Your task to perform on an android device: uninstall "Microsoft Excel" Image 0: 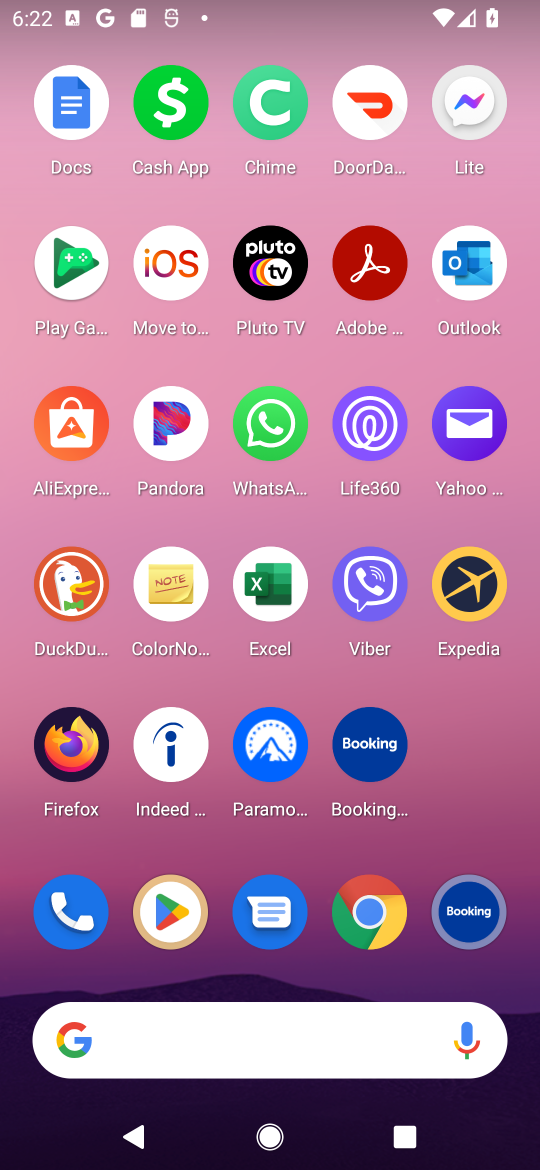
Step 0: click (177, 910)
Your task to perform on an android device: uninstall "Microsoft Excel" Image 1: 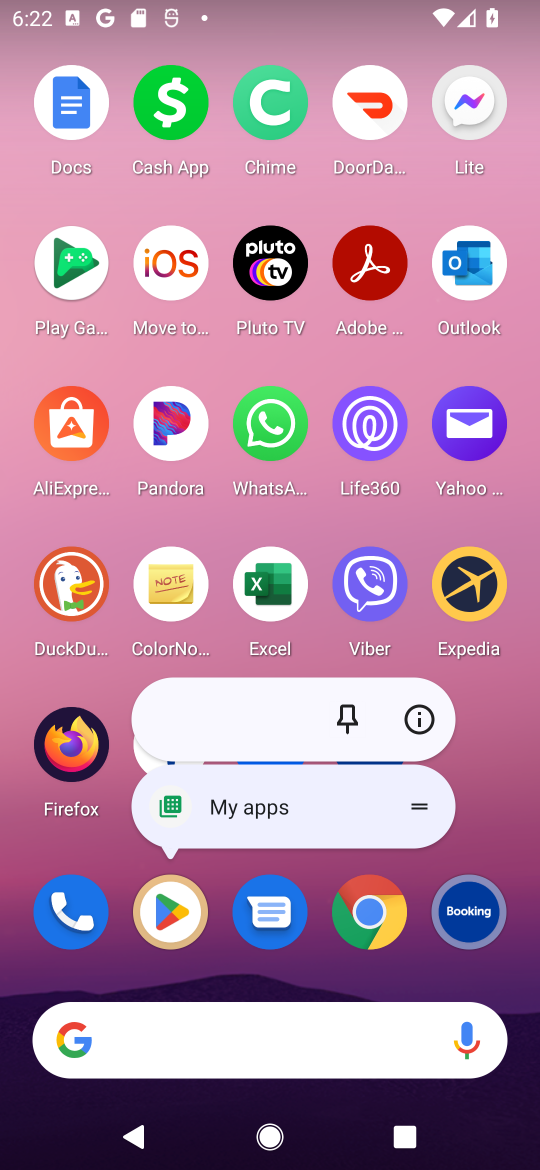
Step 1: click (159, 903)
Your task to perform on an android device: uninstall "Microsoft Excel" Image 2: 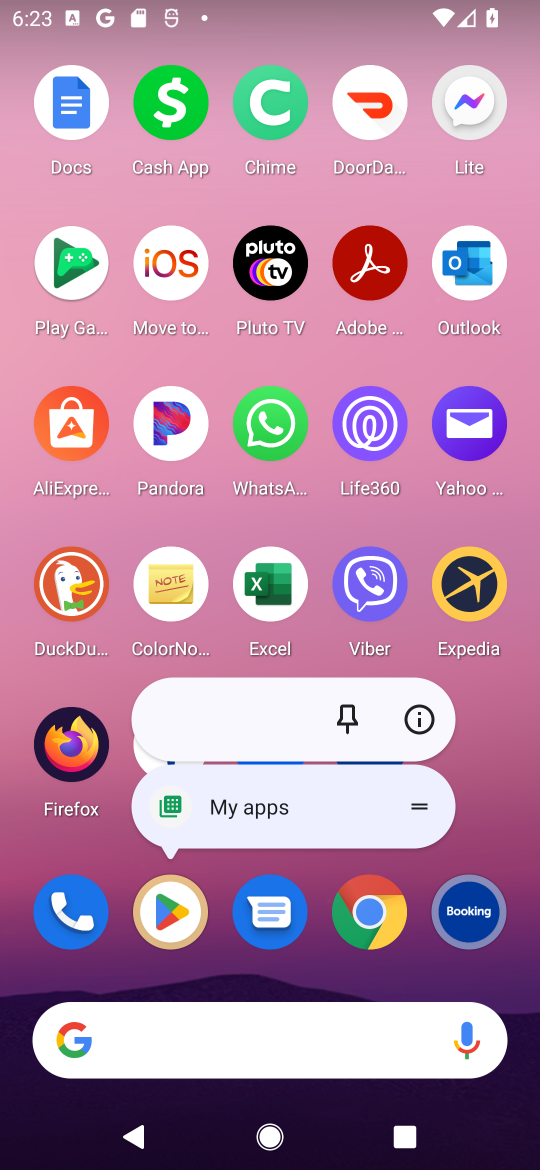
Step 2: click (152, 929)
Your task to perform on an android device: uninstall "Microsoft Excel" Image 3: 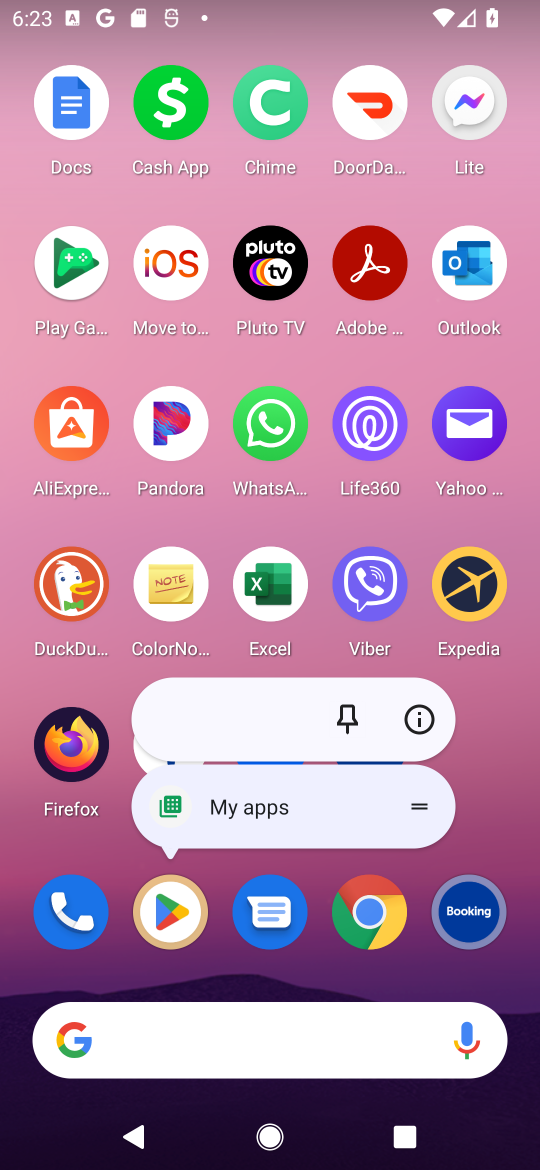
Step 3: click (152, 921)
Your task to perform on an android device: uninstall "Microsoft Excel" Image 4: 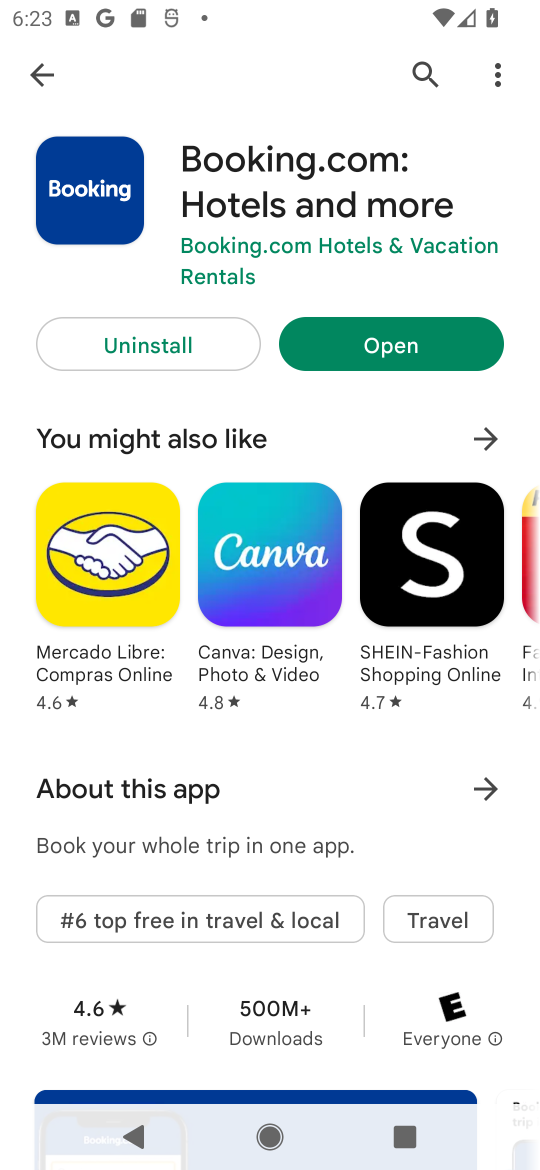
Step 4: click (57, 67)
Your task to perform on an android device: uninstall "Microsoft Excel" Image 5: 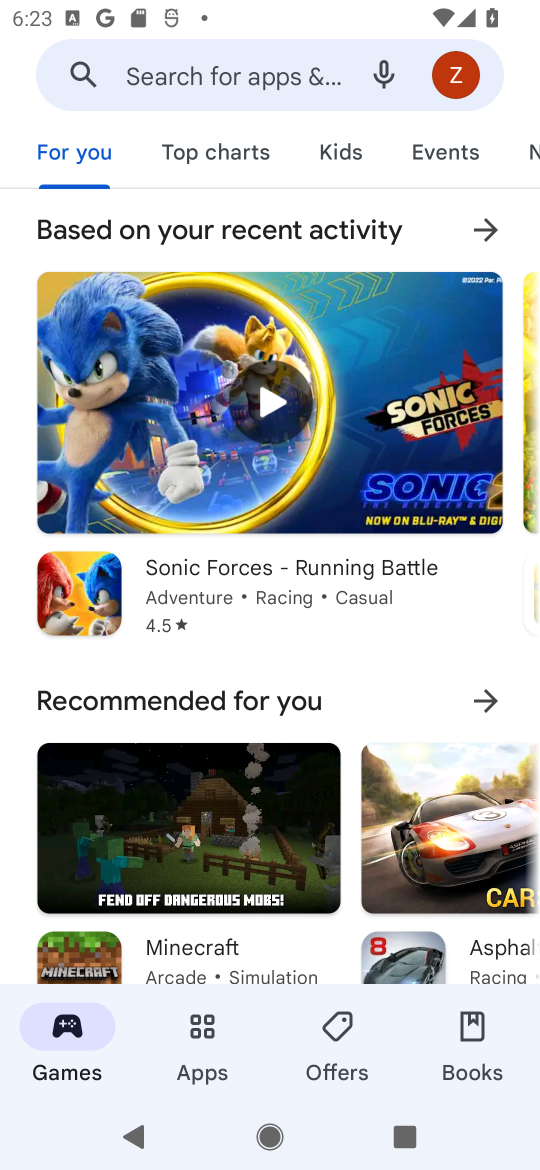
Step 5: click (200, 59)
Your task to perform on an android device: uninstall "Microsoft Excel" Image 6: 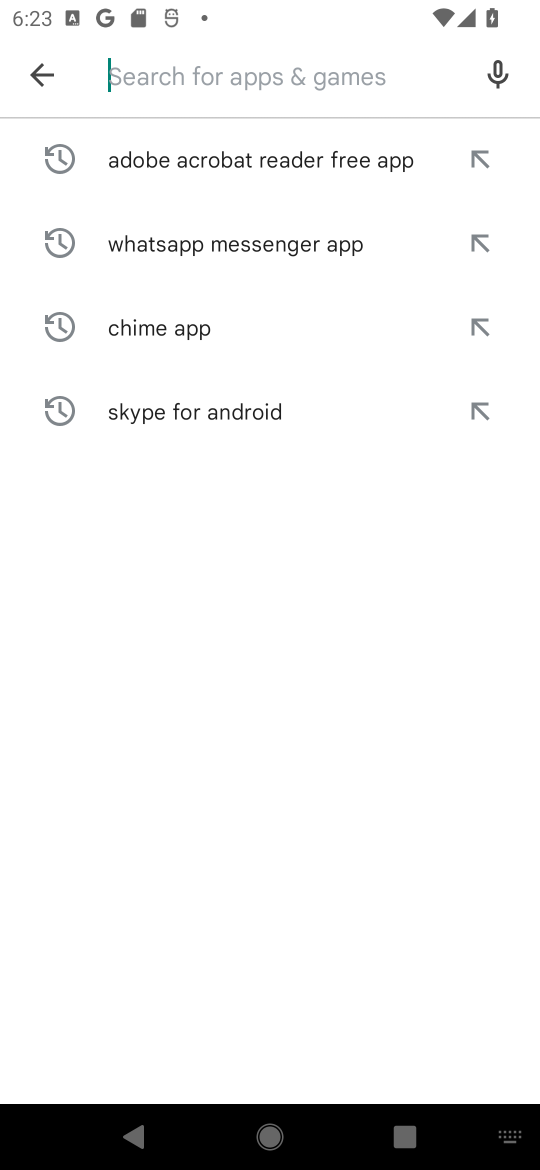
Step 6: type "Microsoft Excel "
Your task to perform on an android device: uninstall "Microsoft Excel" Image 7: 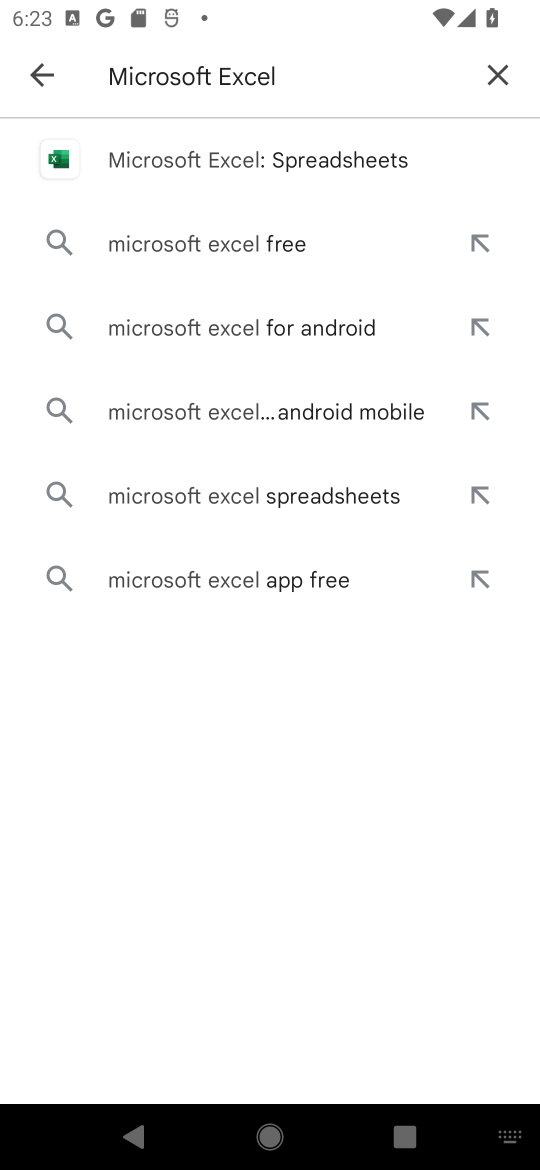
Step 7: click (219, 146)
Your task to perform on an android device: uninstall "Microsoft Excel" Image 8: 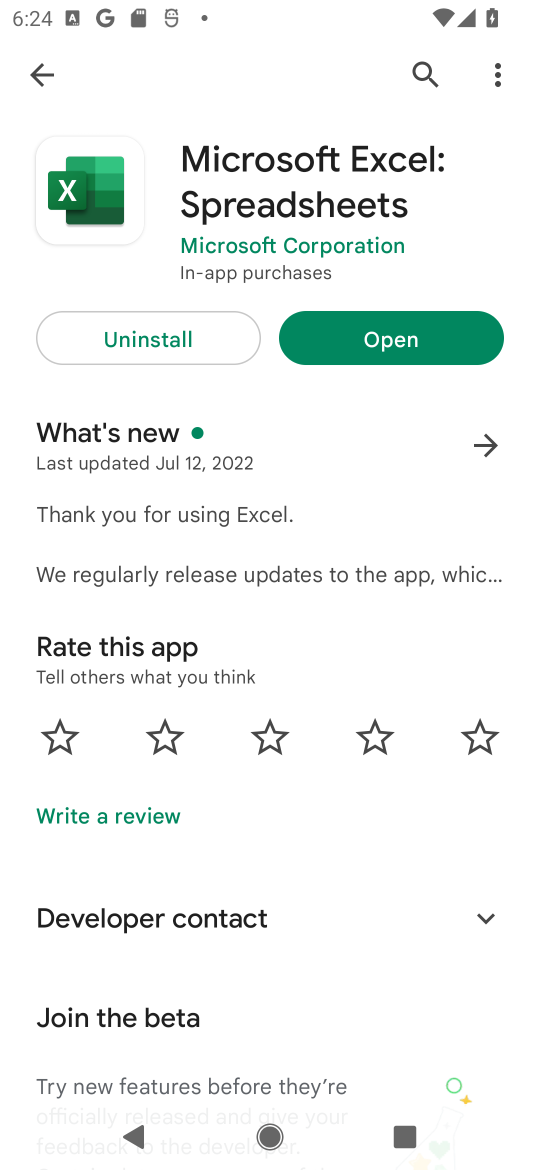
Step 8: click (178, 343)
Your task to perform on an android device: uninstall "Microsoft Excel" Image 9: 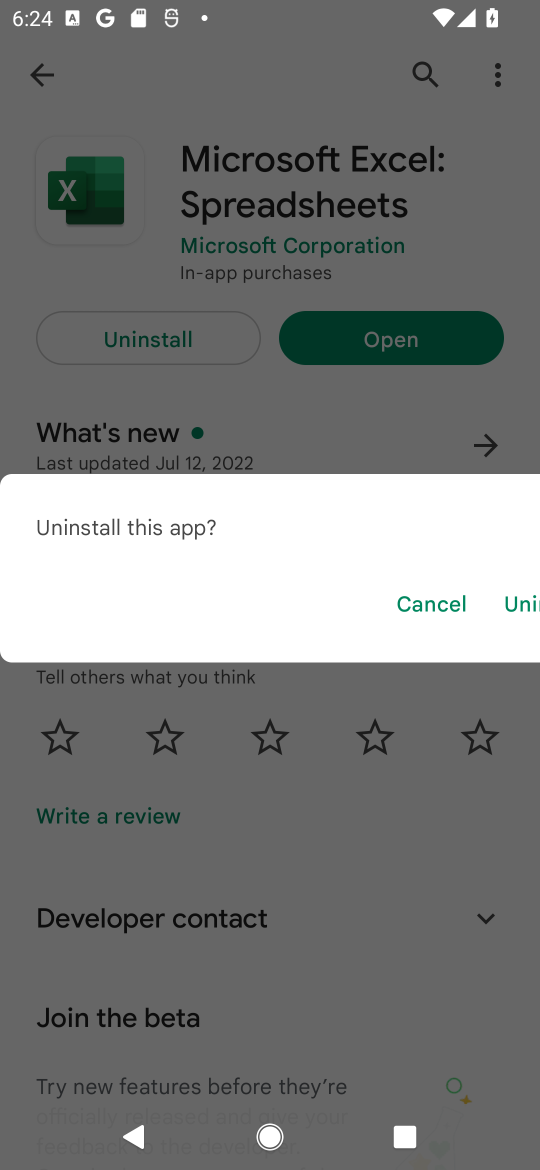
Step 9: click (530, 604)
Your task to perform on an android device: uninstall "Microsoft Excel" Image 10: 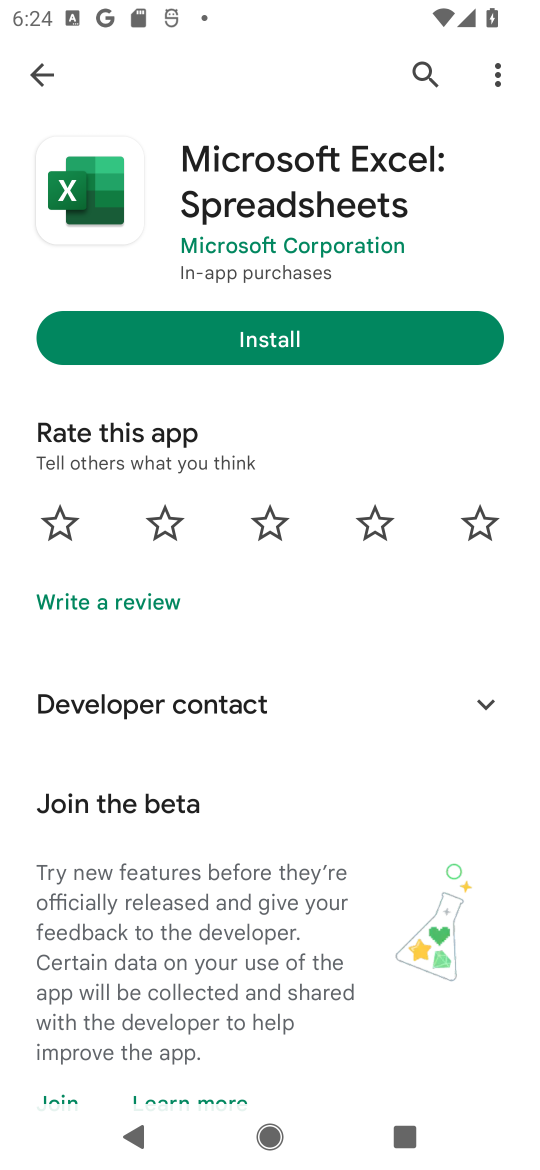
Step 10: task complete